Your task to perform on an android device: Do I have any events tomorrow? Image 0: 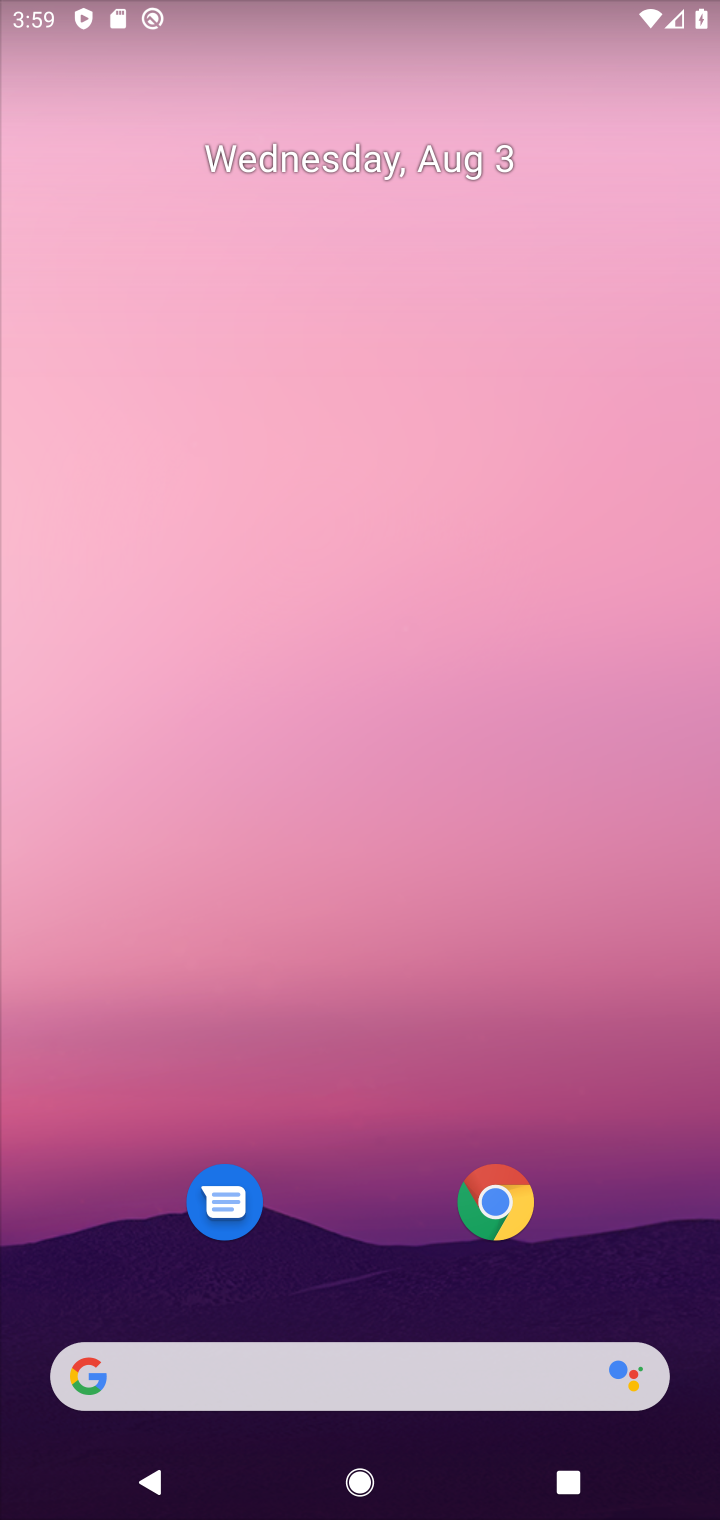
Step 0: drag from (327, 1055) to (403, 208)
Your task to perform on an android device: Do I have any events tomorrow? Image 1: 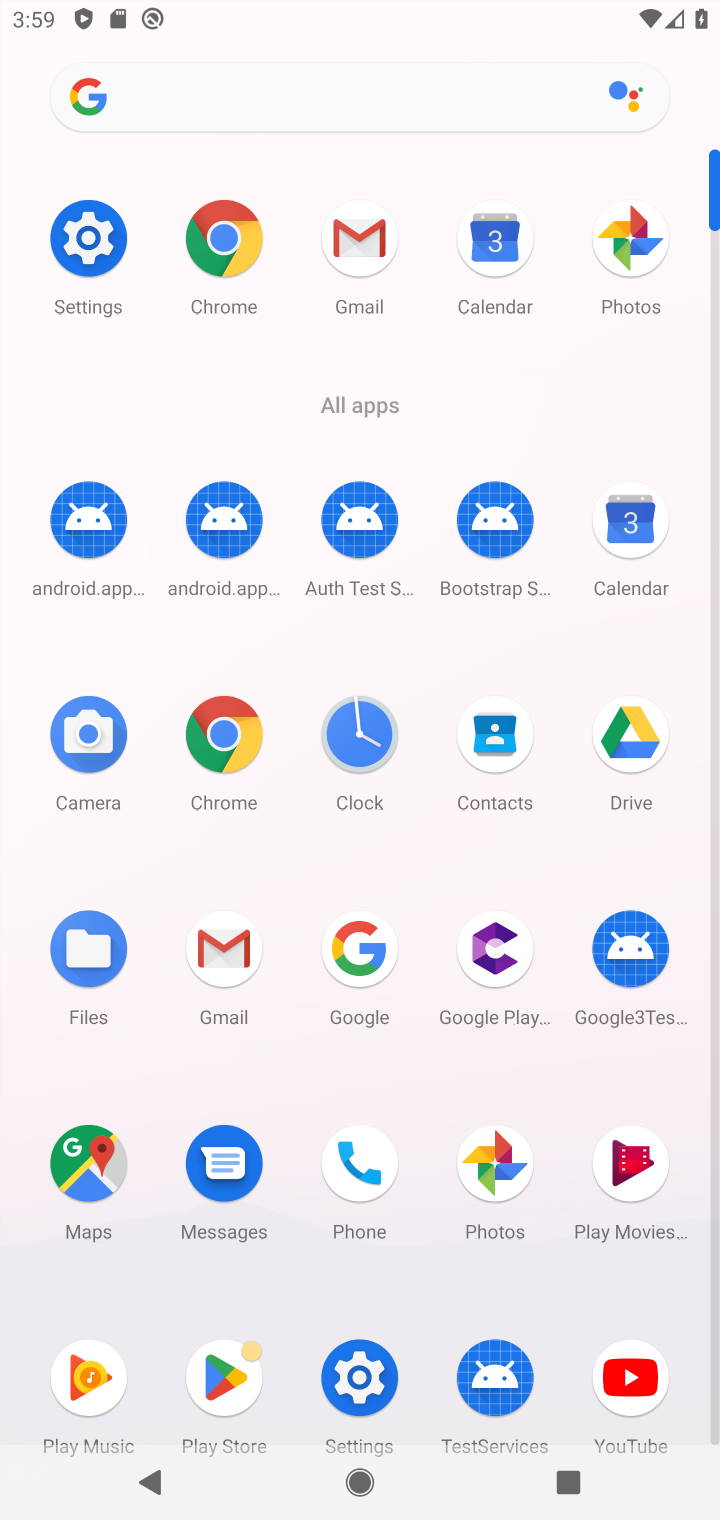
Step 1: click (633, 517)
Your task to perform on an android device: Do I have any events tomorrow? Image 2: 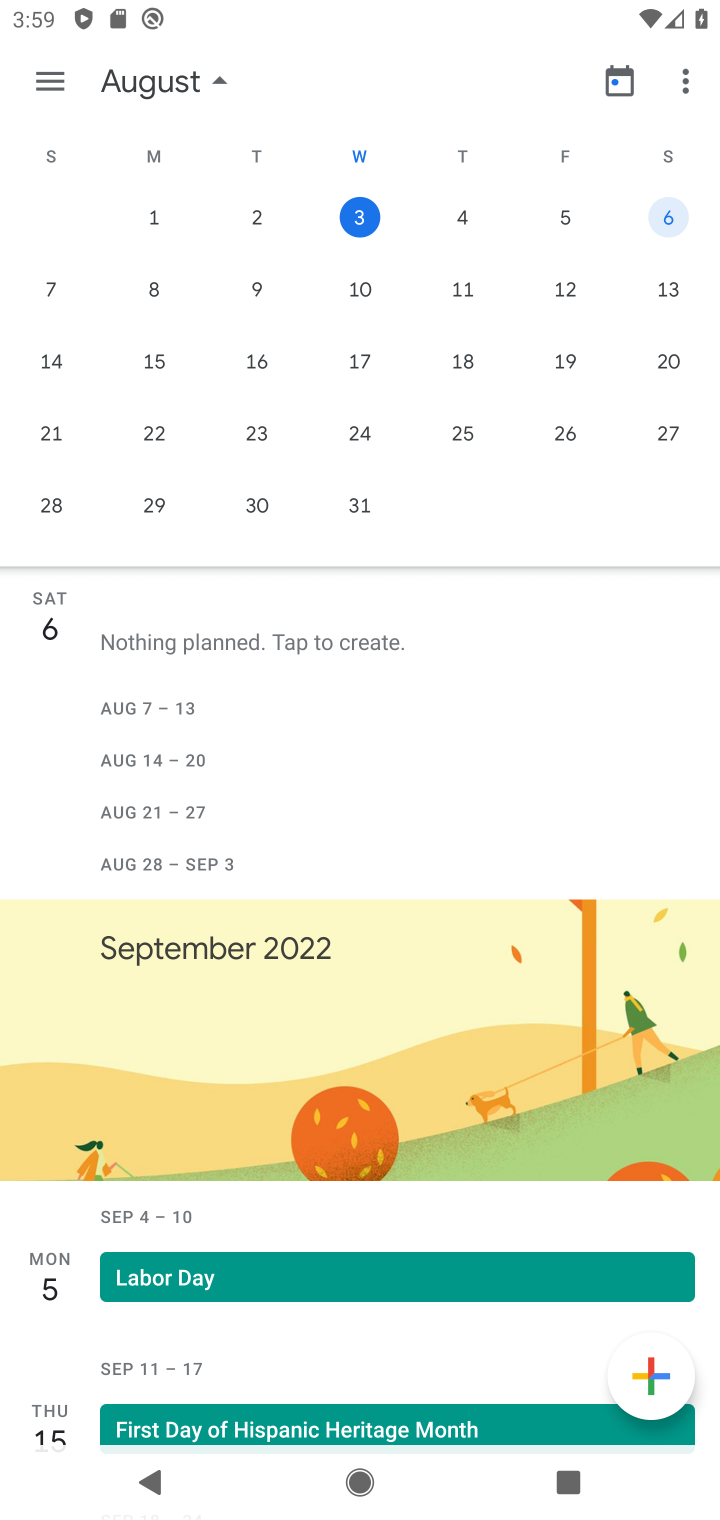
Step 2: click (470, 218)
Your task to perform on an android device: Do I have any events tomorrow? Image 3: 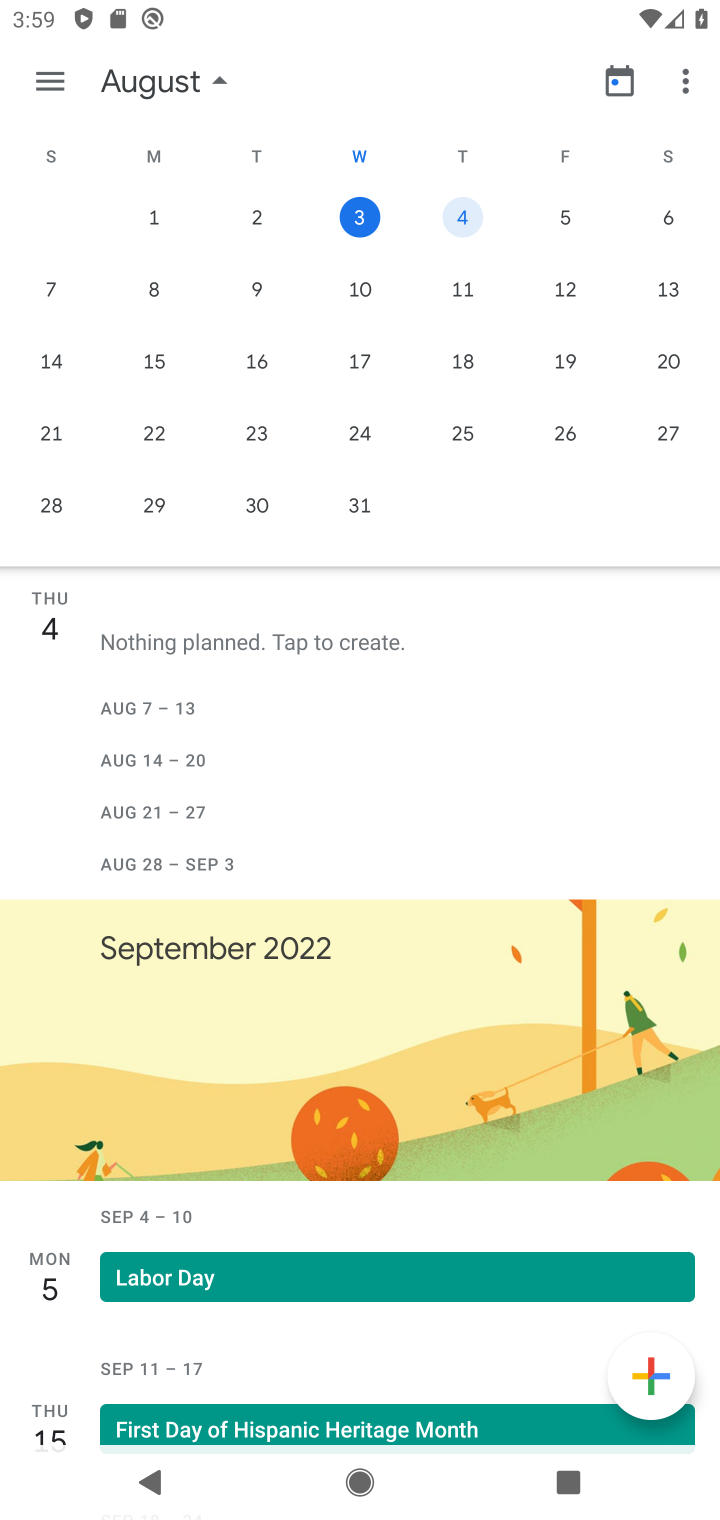
Step 3: task complete